Your task to perform on an android device: What's the latest video from IGN? Image 0: 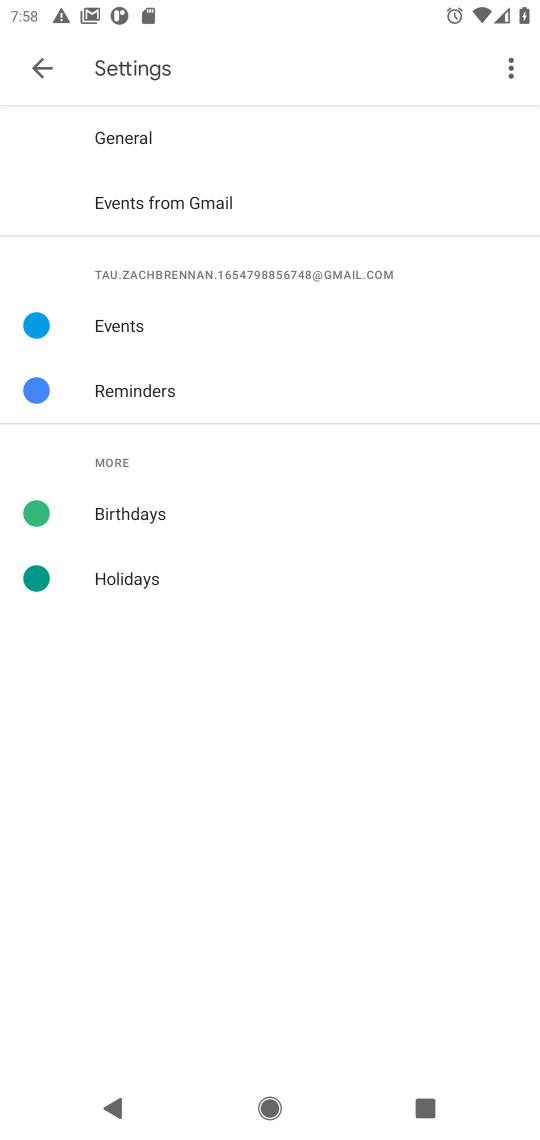
Step 0: press home button
Your task to perform on an android device: What's the latest video from IGN? Image 1: 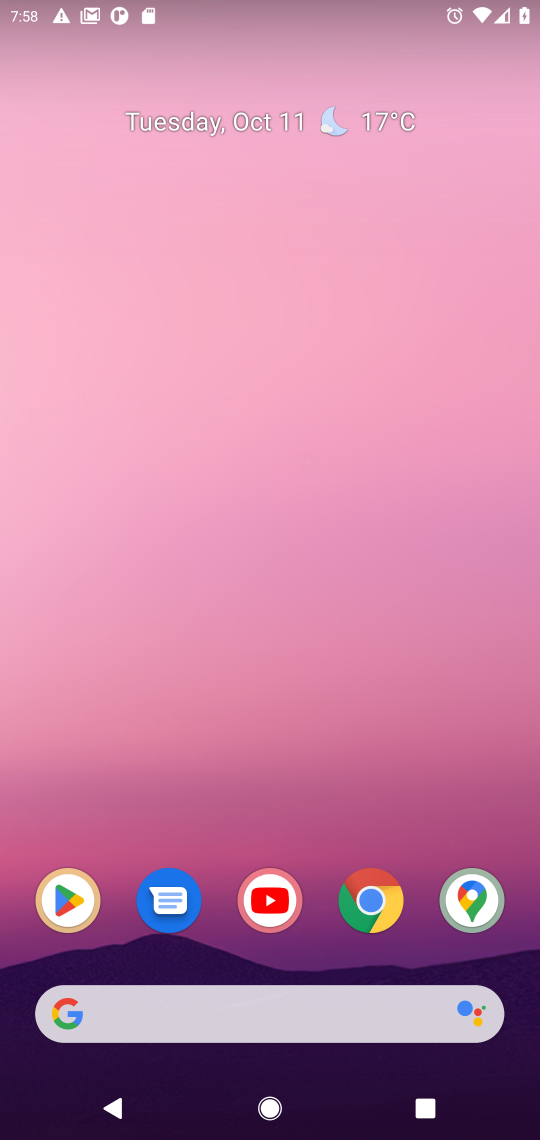
Step 1: click (365, 905)
Your task to perform on an android device: What's the latest video from IGN? Image 2: 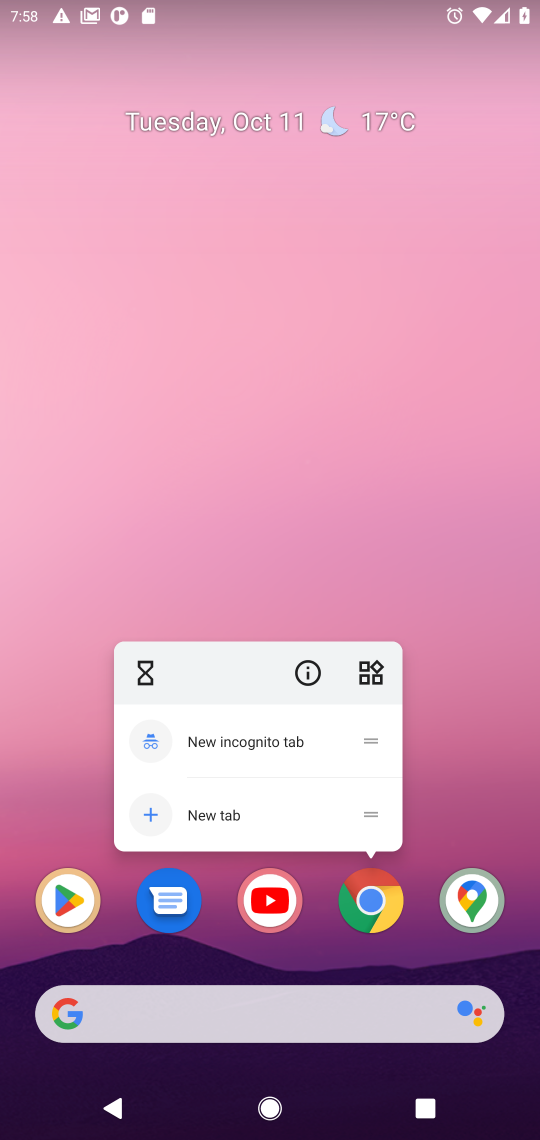
Step 2: click (375, 904)
Your task to perform on an android device: What's the latest video from IGN? Image 3: 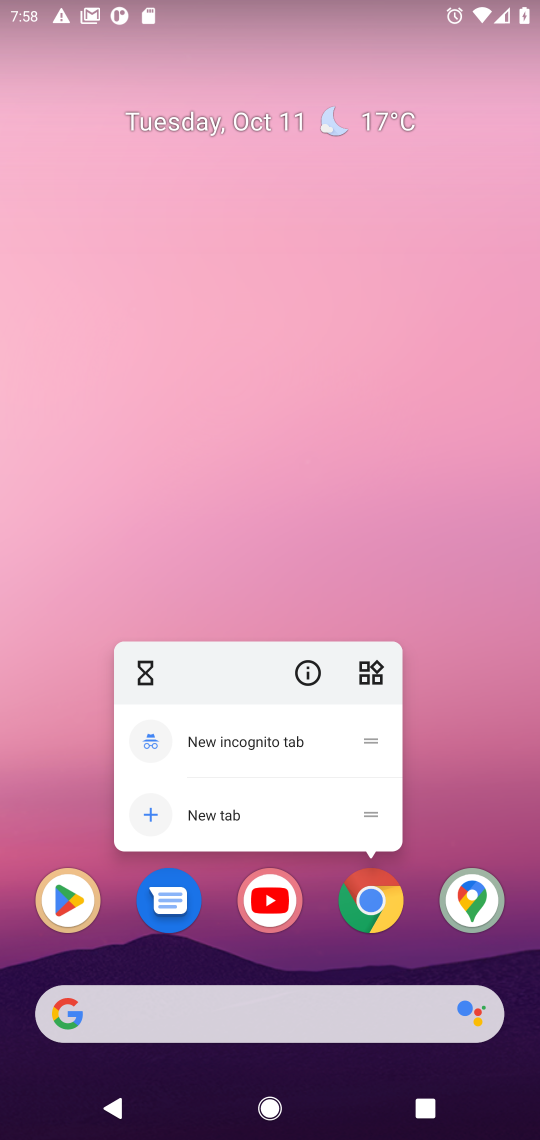
Step 3: click (375, 904)
Your task to perform on an android device: What's the latest video from IGN? Image 4: 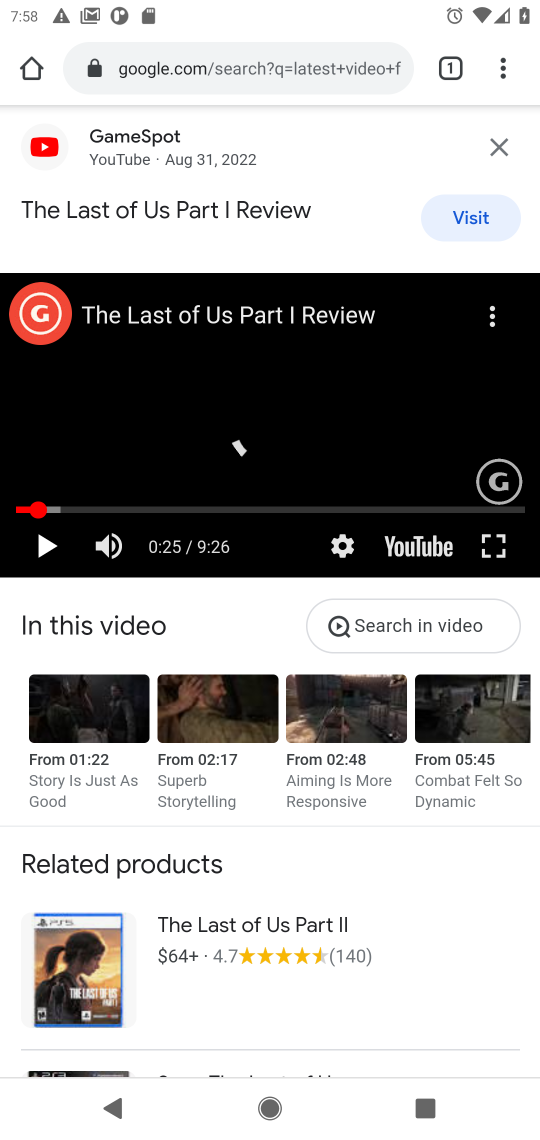
Step 4: click (316, 61)
Your task to perform on an android device: What's the latest video from IGN? Image 5: 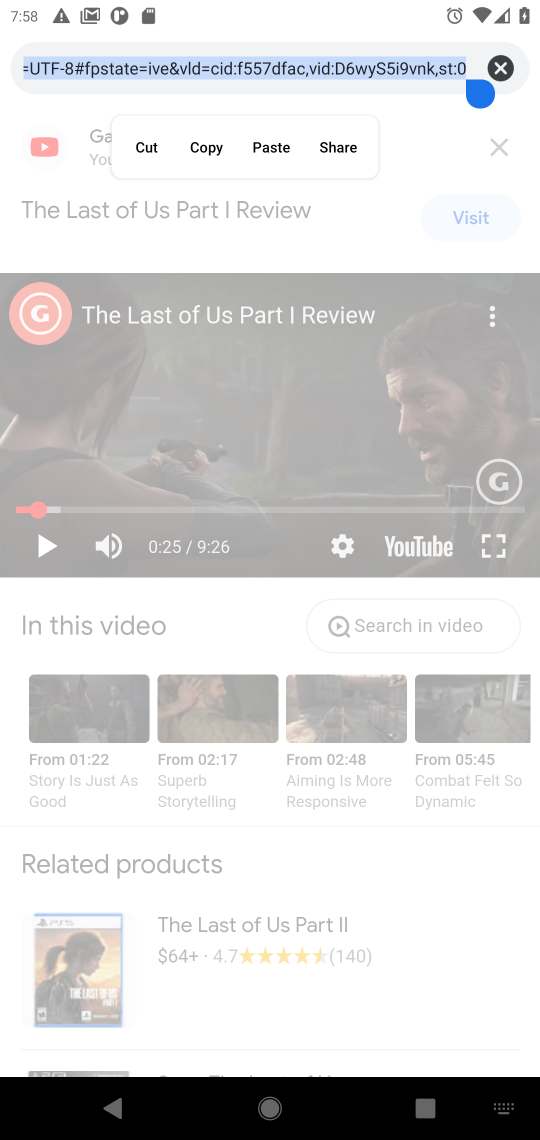
Step 5: click (498, 72)
Your task to perform on an android device: What's the latest video from IGN? Image 6: 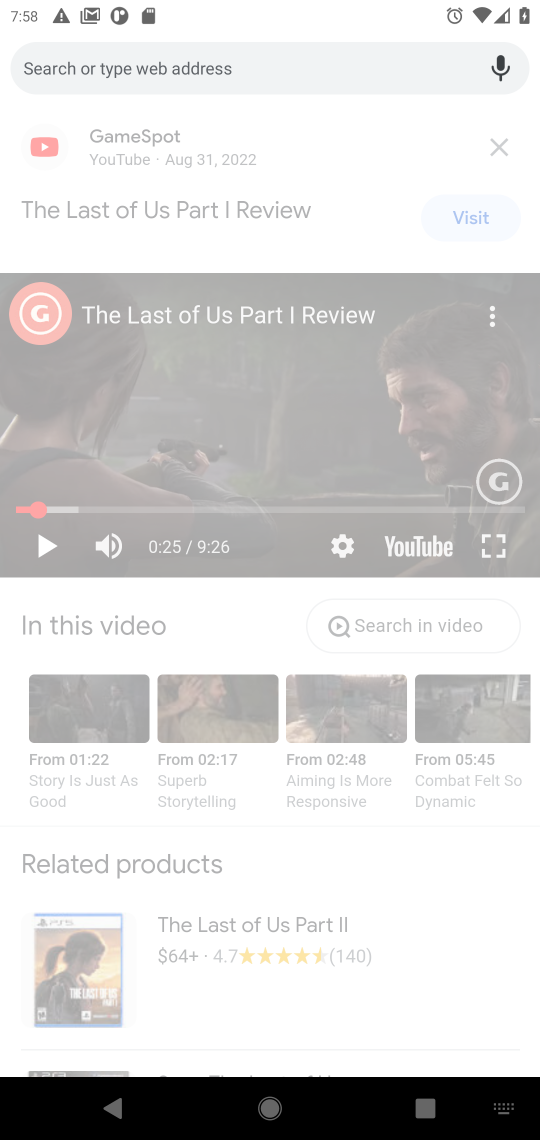
Step 6: type "latest video from IGN"
Your task to perform on an android device: What's the latest video from IGN? Image 7: 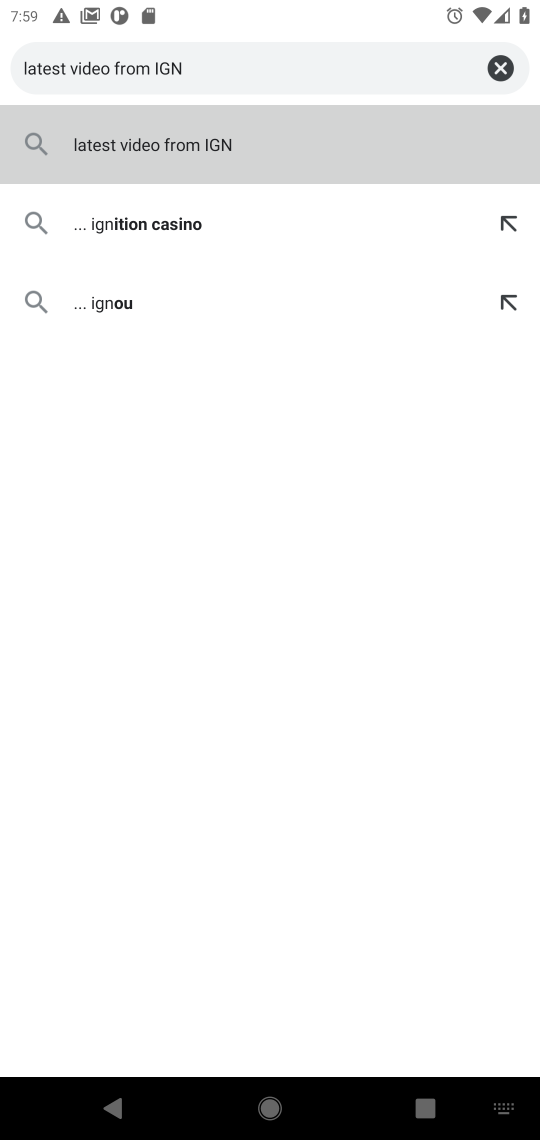
Step 7: press enter
Your task to perform on an android device: What's the latest video from IGN? Image 8: 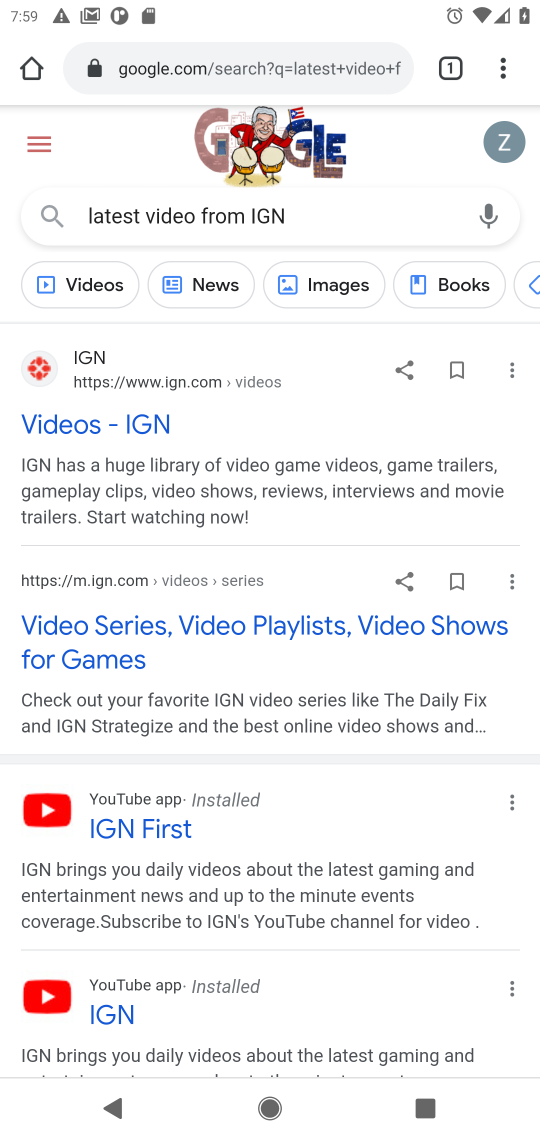
Step 8: drag from (179, 845) to (363, 326)
Your task to perform on an android device: What's the latest video from IGN? Image 9: 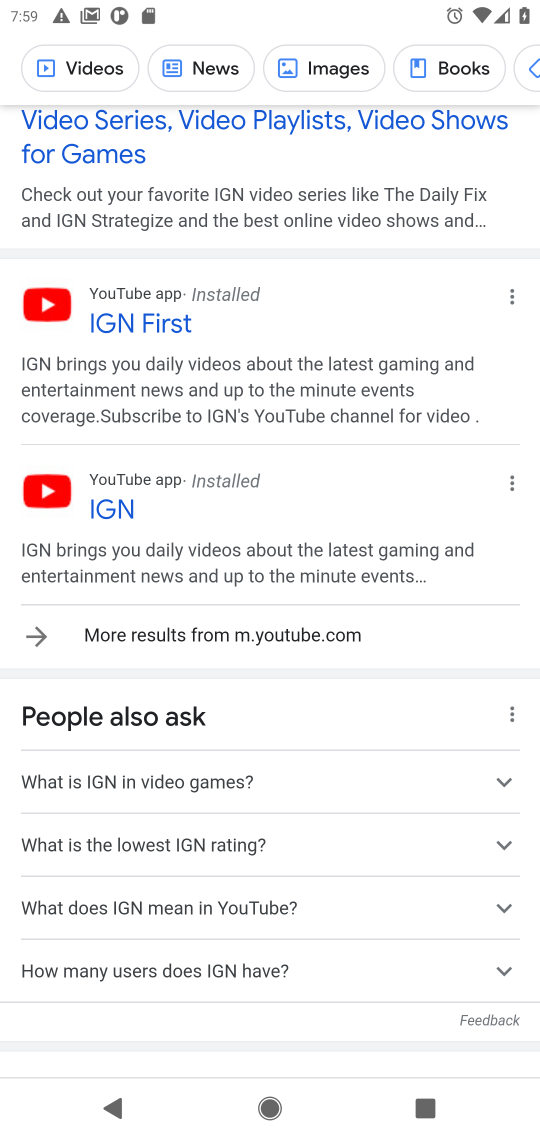
Step 9: drag from (195, 731) to (403, 226)
Your task to perform on an android device: What's the latest video from IGN? Image 10: 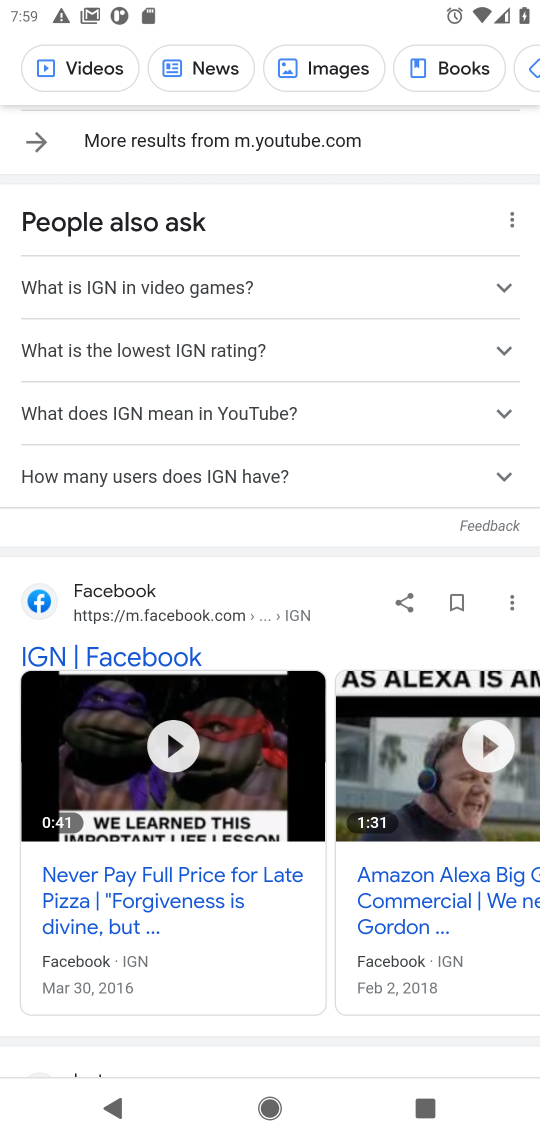
Step 10: drag from (330, 263) to (235, 907)
Your task to perform on an android device: What's the latest video from IGN? Image 11: 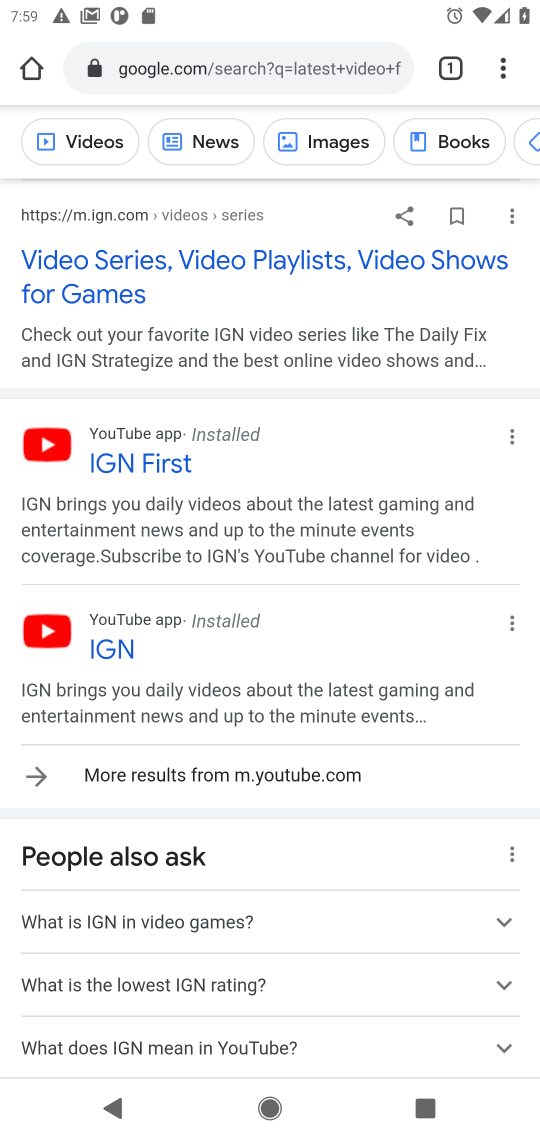
Step 11: click (55, 454)
Your task to perform on an android device: What's the latest video from IGN? Image 12: 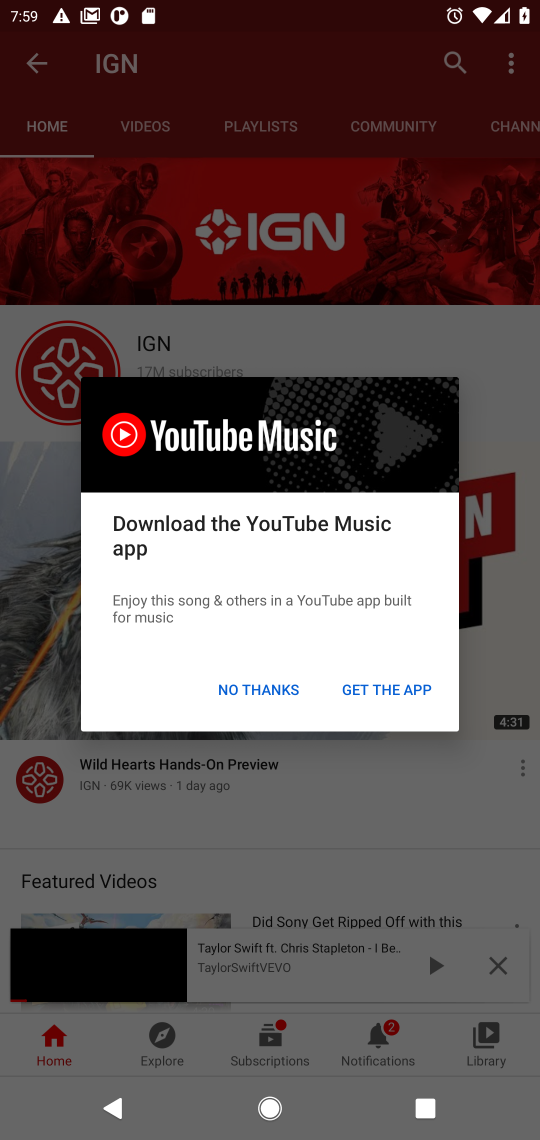
Step 12: click (267, 679)
Your task to perform on an android device: What's the latest video from IGN? Image 13: 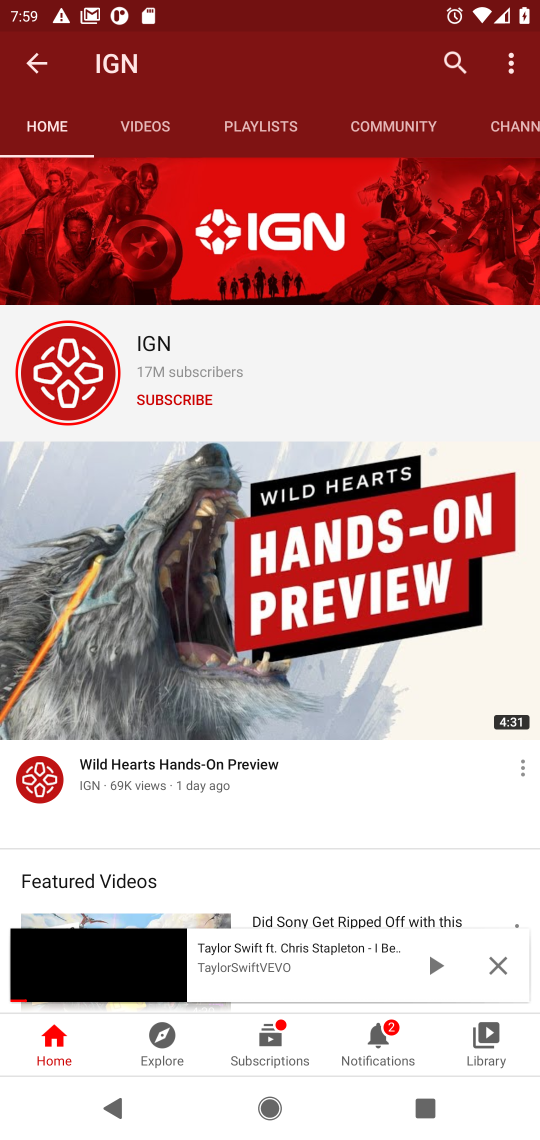
Step 13: drag from (251, 890) to (366, 413)
Your task to perform on an android device: What's the latest video from IGN? Image 14: 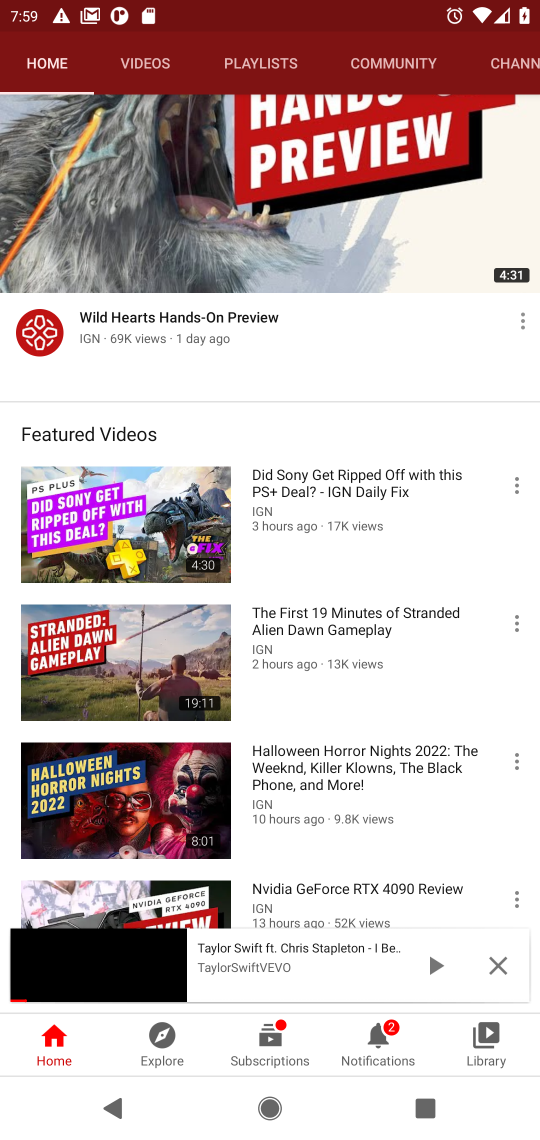
Step 14: click (493, 959)
Your task to perform on an android device: What's the latest video from IGN? Image 15: 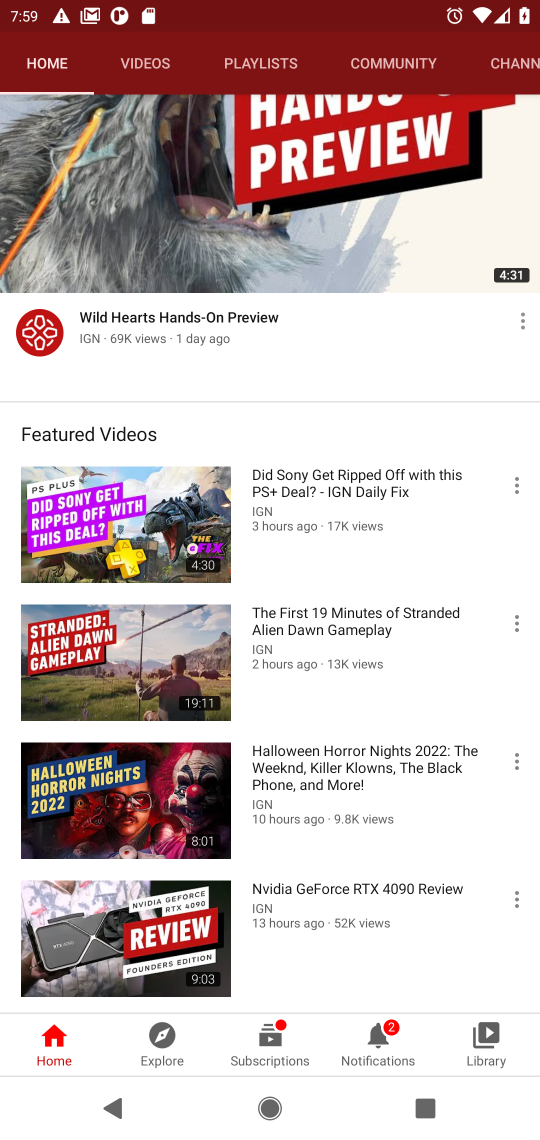
Step 15: click (130, 507)
Your task to perform on an android device: What's the latest video from IGN? Image 16: 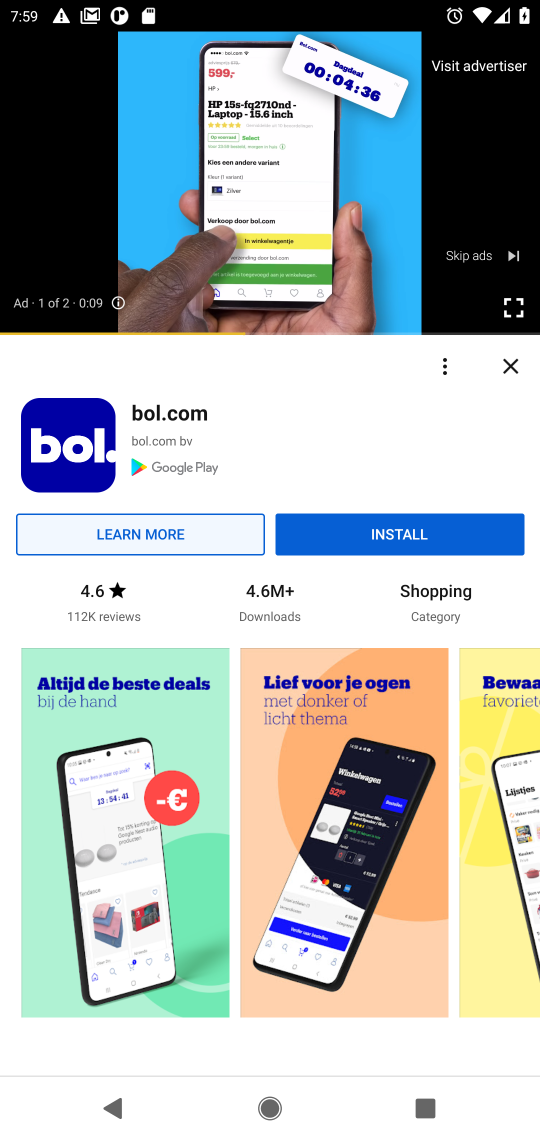
Step 16: click (455, 262)
Your task to perform on an android device: What's the latest video from IGN? Image 17: 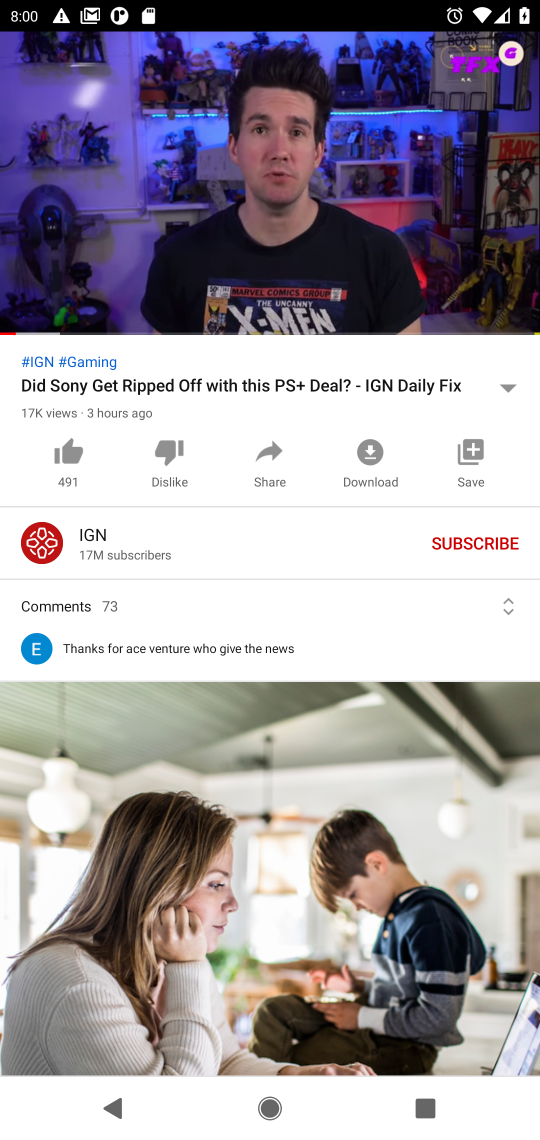
Step 17: click (267, 140)
Your task to perform on an android device: What's the latest video from IGN? Image 18: 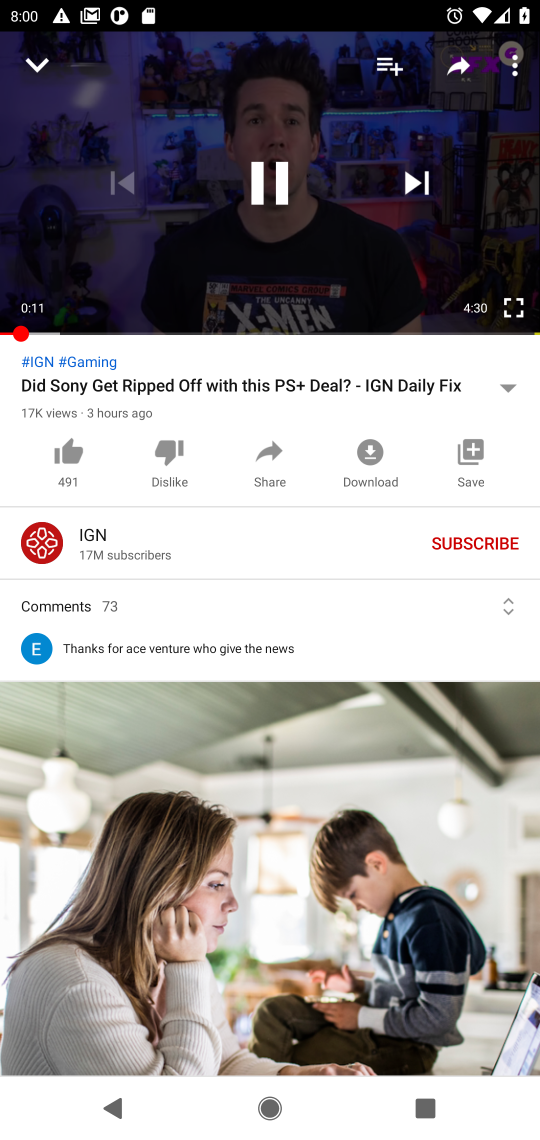
Step 18: click (274, 194)
Your task to perform on an android device: What's the latest video from IGN? Image 19: 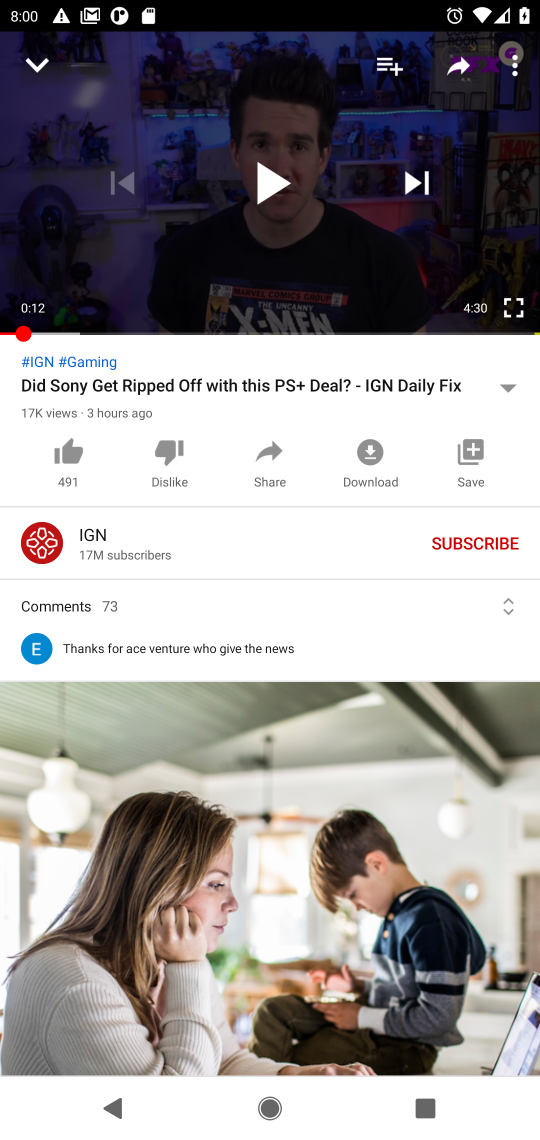
Step 19: task complete